Your task to perform on an android device: Where can I buy a nice beach sandals? Image 0: 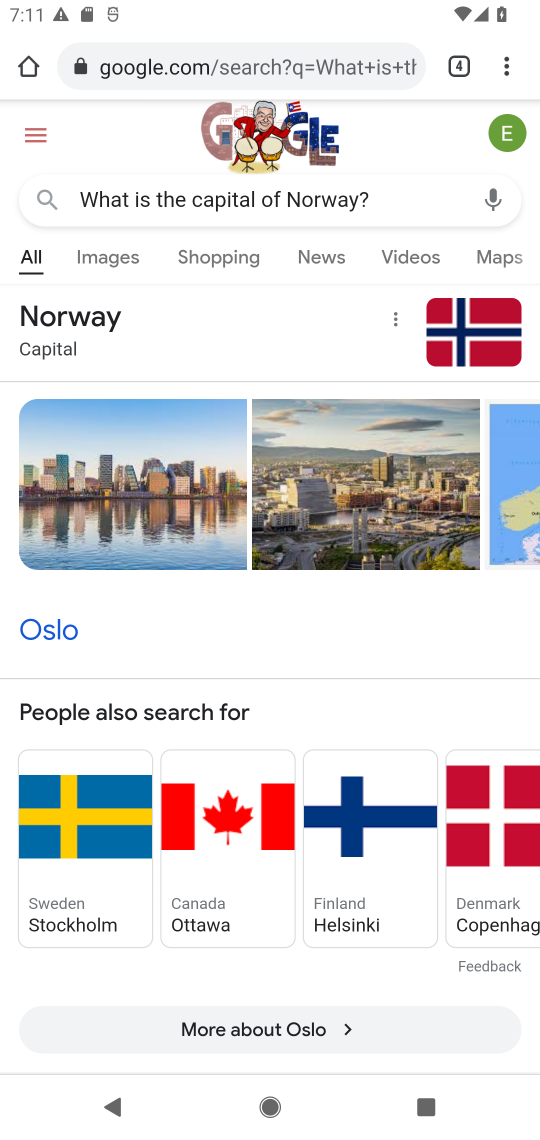
Step 0: click (296, 70)
Your task to perform on an android device: Where can I buy a nice beach sandals? Image 1: 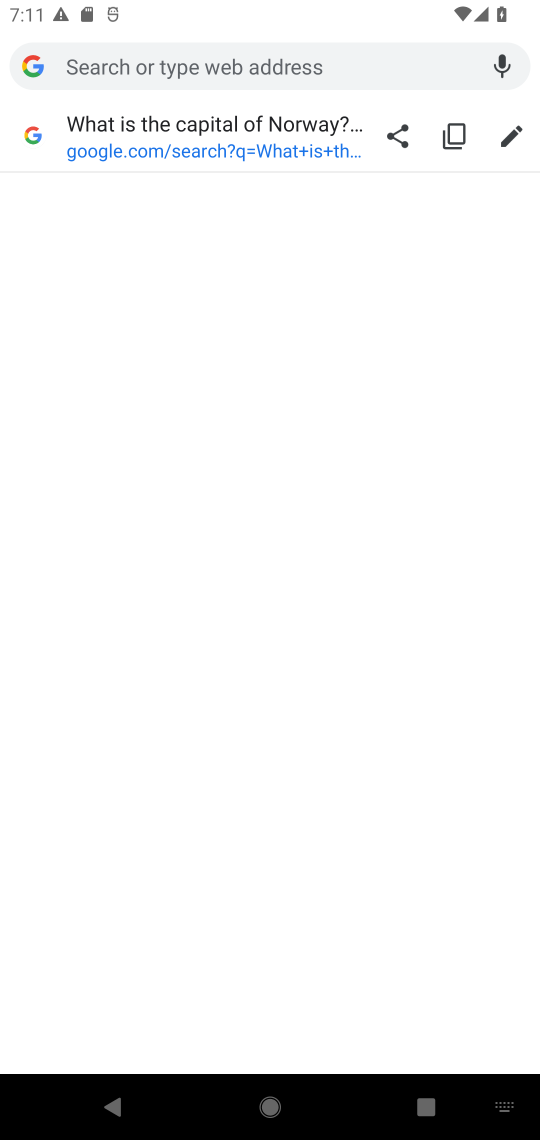
Step 1: type "Where can I buy a nice beach sandals?"
Your task to perform on an android device: Where can I buy a nice beach sandals? Image 2: 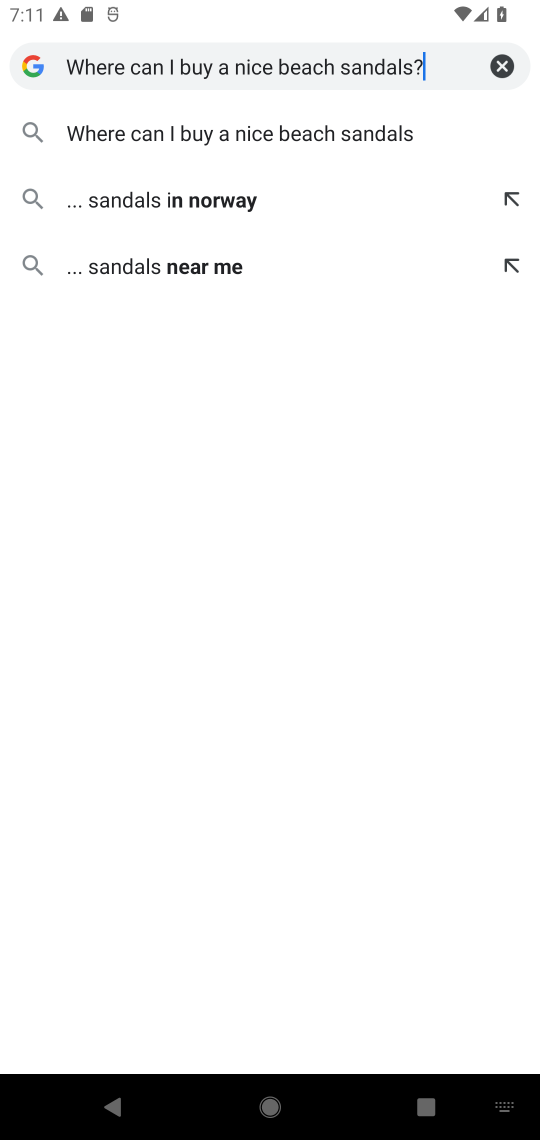
Step 2: press enter
Your task to perform on an android device: Where can I buy a nice beach sandals? Image 3: 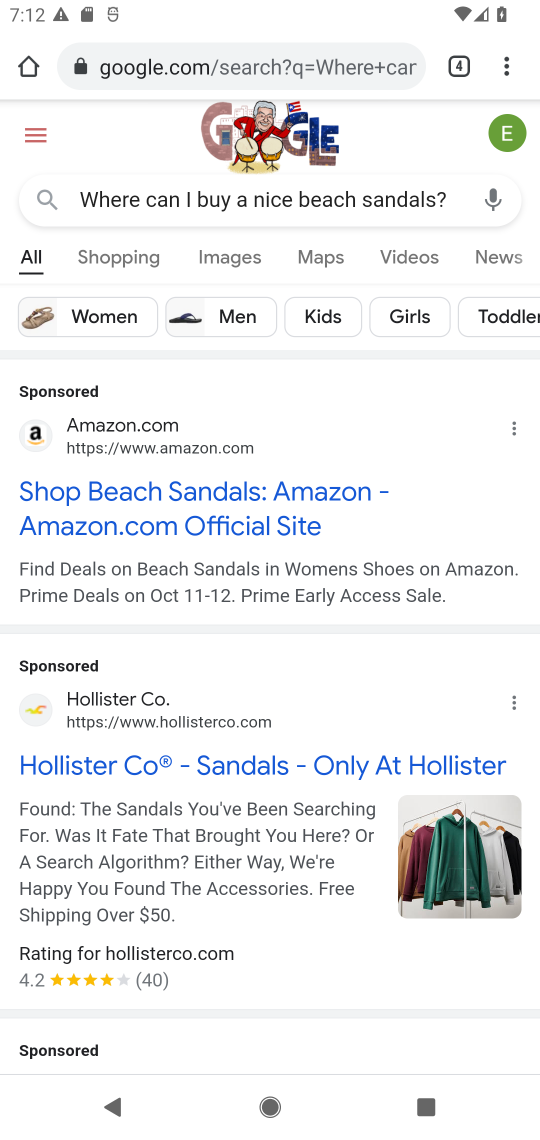
Step 3: task complete